Your task to perform on an android device: turn off sleep mode Image 0: 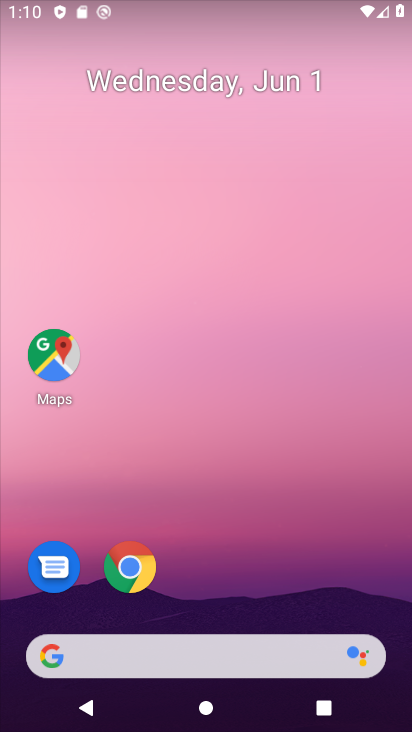
Step 0: drag from (248, 646) to (328, 36)
Your task to perform on an android device: turn off sleep mode Image 1: 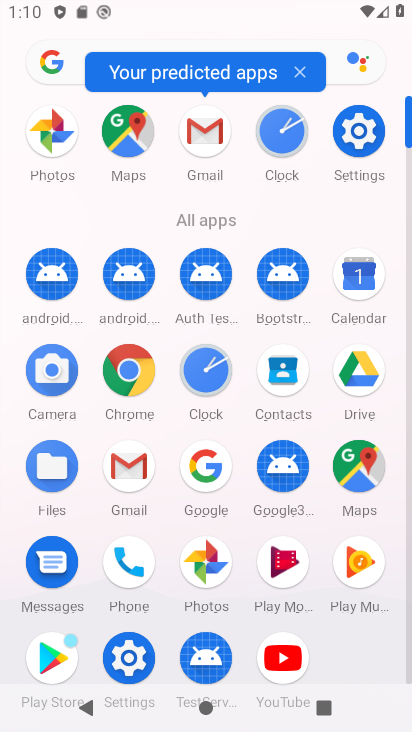
Step 1: click (371, 147)
Your task to perform on an android device: turn off sleep mode Image 2: 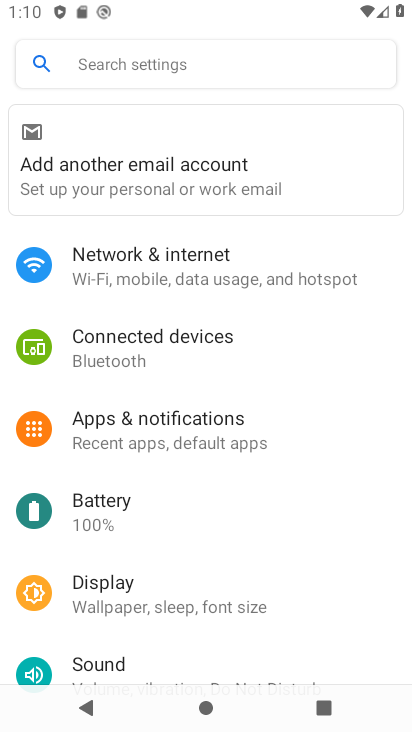
Step 2: click (122, 586)
Your task to perform on an android device: turn off sleep mode Image 3: 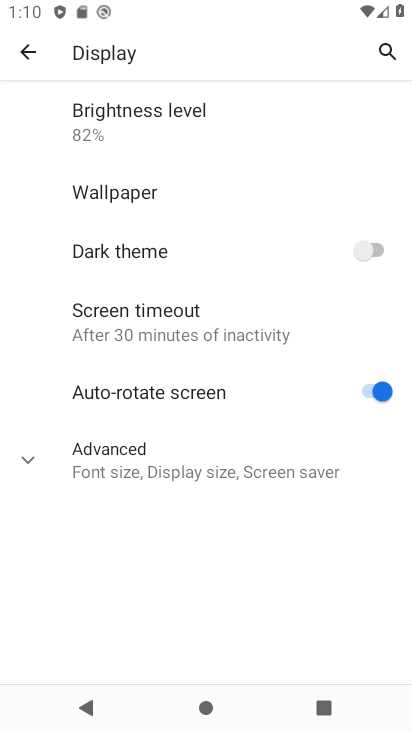
Step 3: click (99, 451)
Your task to perform on an android device: turn off sleep mode Image 4: 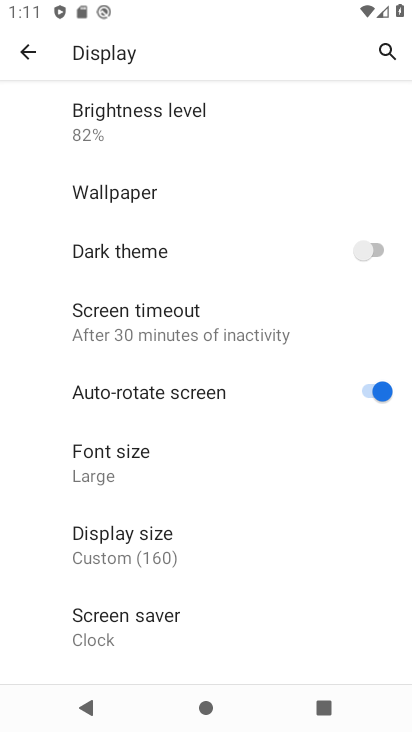
Step 4: task complete